Your task to perform on an android device: Open display settings Image 0: 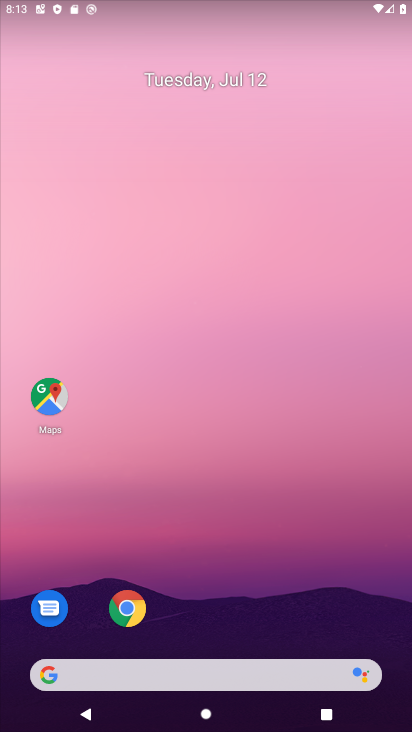
Step 0: drag from (178, 612) to (298, 7)
Your task to perform on an android device: Open display settings Image 1: 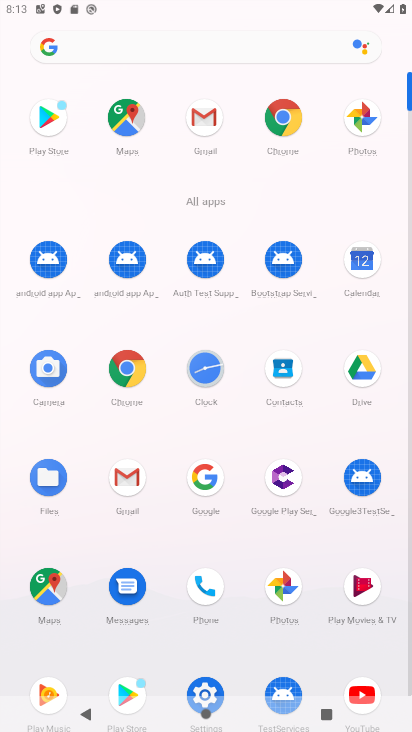
Step 1: click (212, 687)
Your task to perform on an android device: Open display settings Image 2: 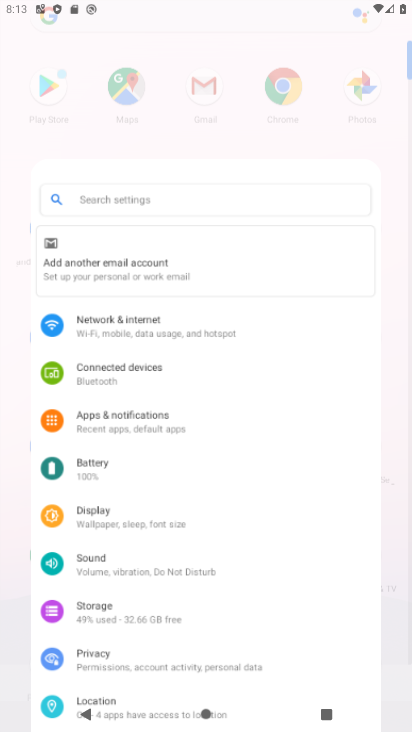
Step 2: click (212, 687)
Your task to perform on an android device: Open display settings Image 3: 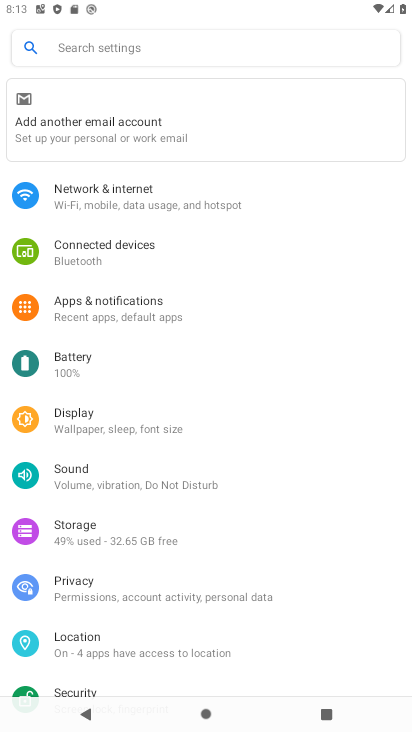
Step 3: click (100, 425)
Your task to perform on an android device: Open display settings Image 4: 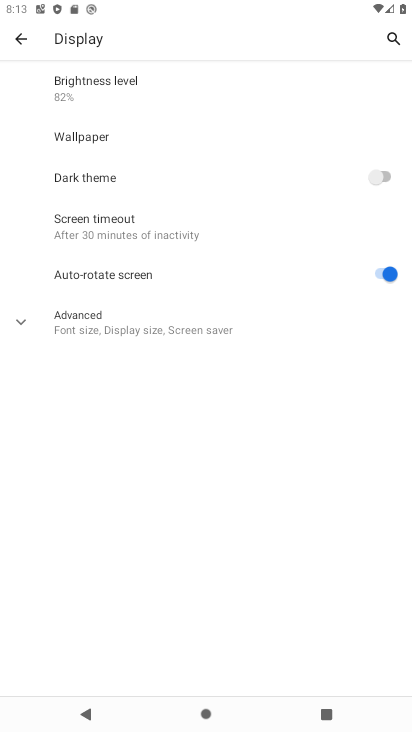
Step 4: task complete